Your task to perform on an android device: Open the calendar and show me this week's events Image 0: 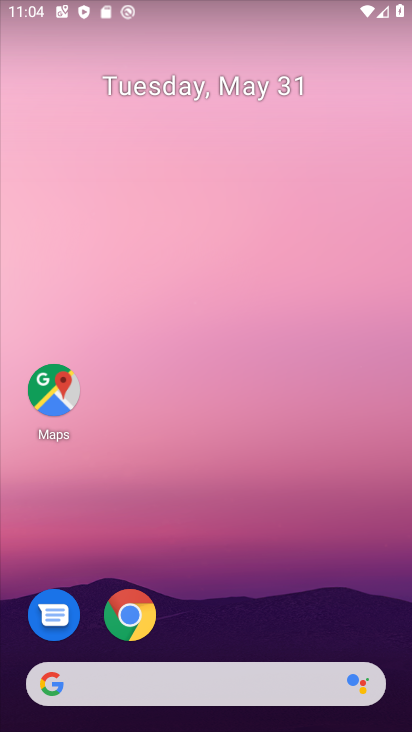
Step 0: click (399, 570)
Your task to perform on an android device: Open the calendar and show me this week's events Image 1: 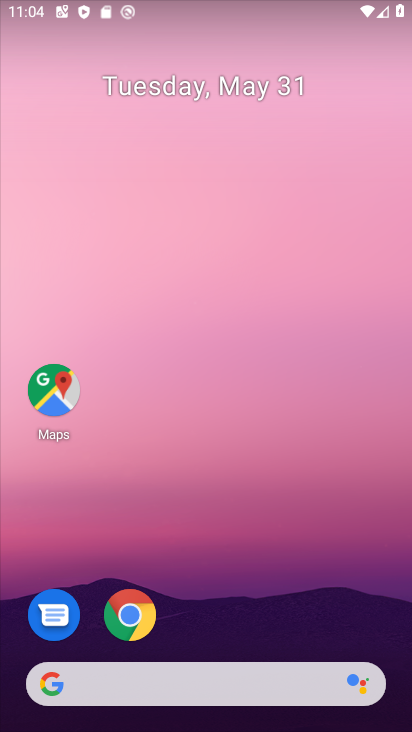
Step 1: drag from (0, 0) to (397, 448)
Your task to perform on an android device: Open the calendar and show me this week's events Image 2: 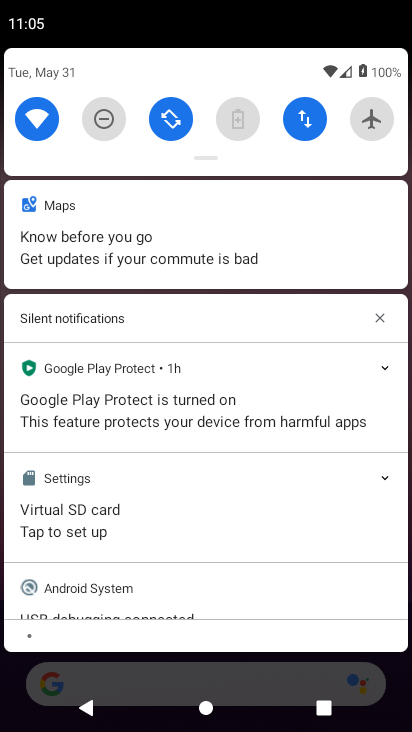
Step 2: click (359, 504)
Your task to perform on an android device: Open the calendar and show me this week's events Image 3: 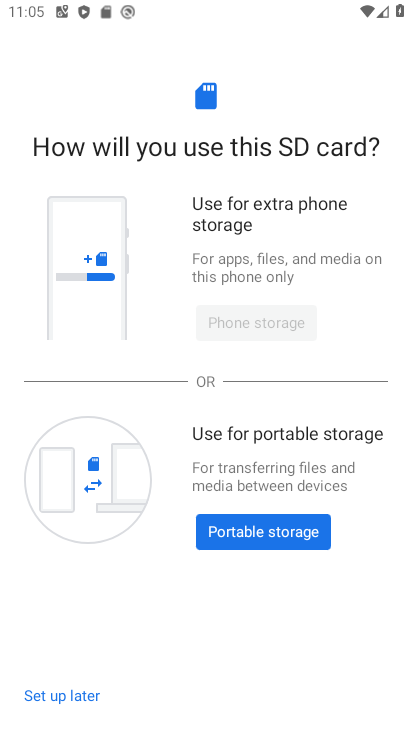
Step 3: click (359, 504)
Your task to perform on an android device: Open the calendar and show me this week's events Image 4: 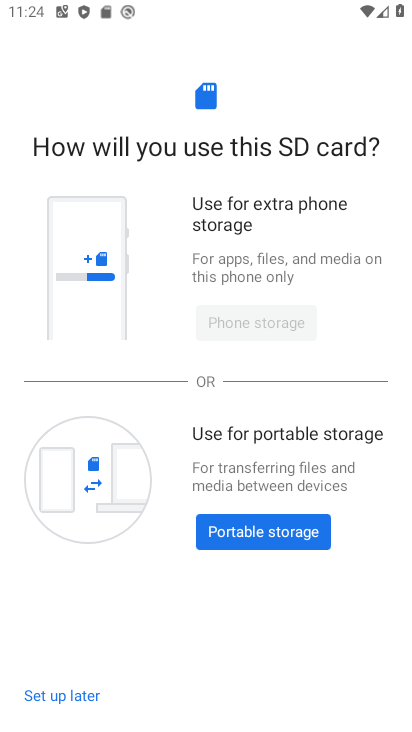
Step 4: task complete